Your task to perform on an android device: Open the stopwatch Image 0: 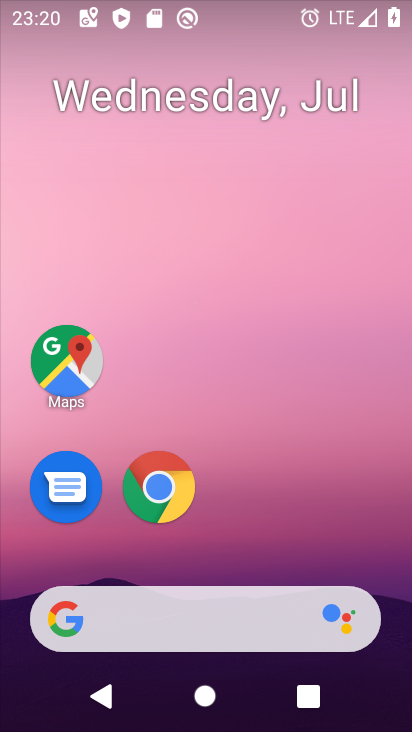
Step 0: drag from (223, 549) to (267, 14)
Your task to perform on an android device: Open the stopwatch Image 1: 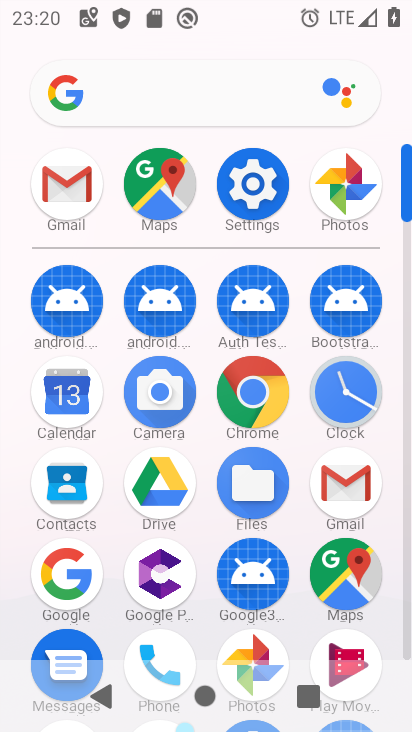
Step 1: click (330, 368)
Your task to perform on an android device: Open the stopwatch Image 2: 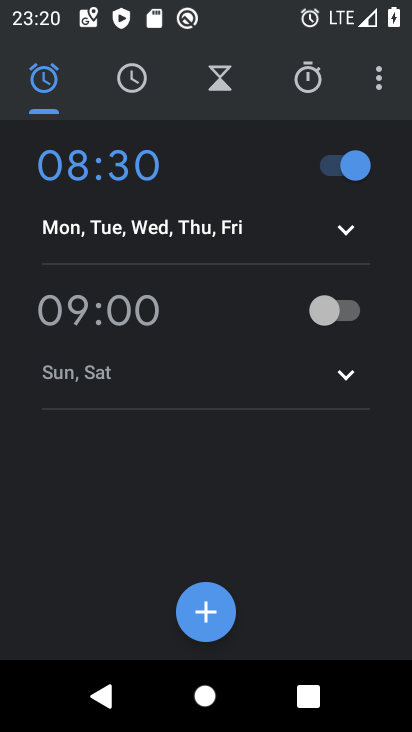
Step 2: click (303, 67)
Your task to perform on an android device: Open the stopwatch Image 3: 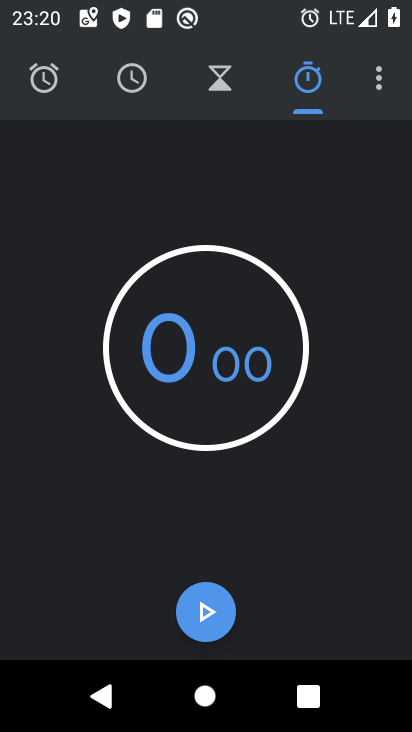
Step 3: task complete